Your task to perform on an android device: Search for pizza restaurants on Maps Image 0: 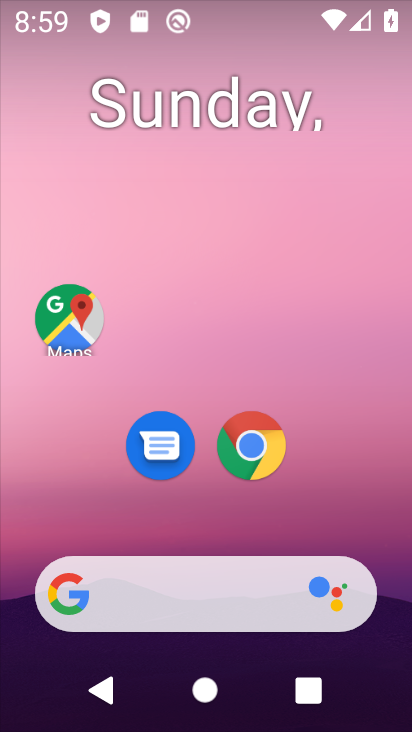
Step 0: click (63, 309)
Your task to perform on an android device: Search for pizza restaurants on Maps Image 1: 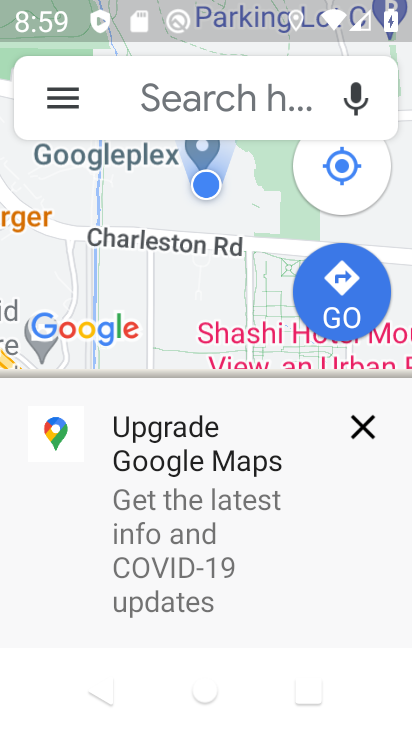
Step 1: click (149, 96)
Your task to perform on an android device: Search for pizza restaurants on Maps Image 2: 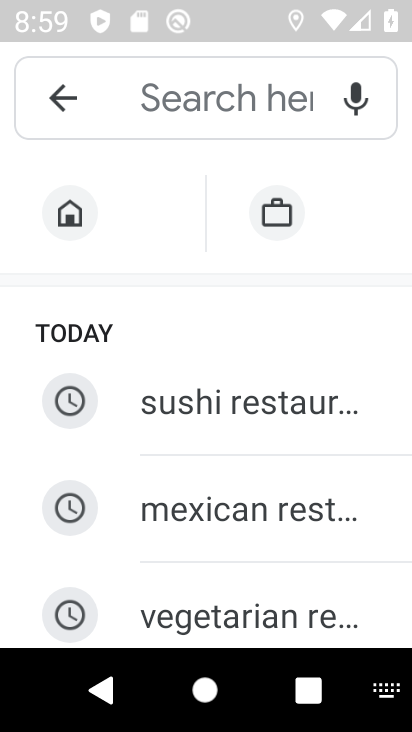
Step 2: type "pizza restaurants"
Your task to perform on an android device: Search for pizza restaurants on Maps Image 3: 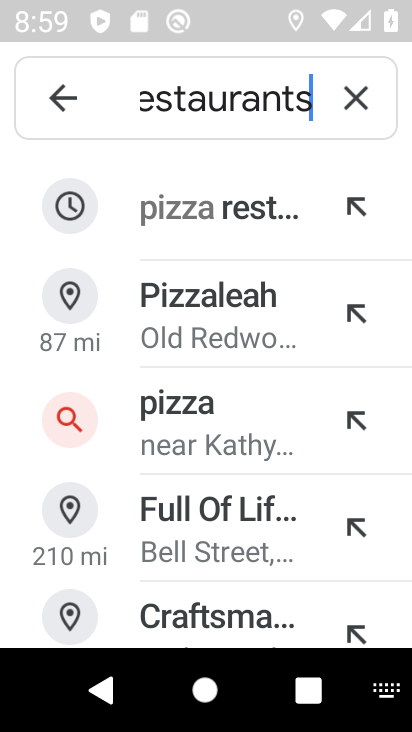
Step 3: click (208, 223)
Your task to perform on an android device: Search for pizza restaurants on Maps Image 4: 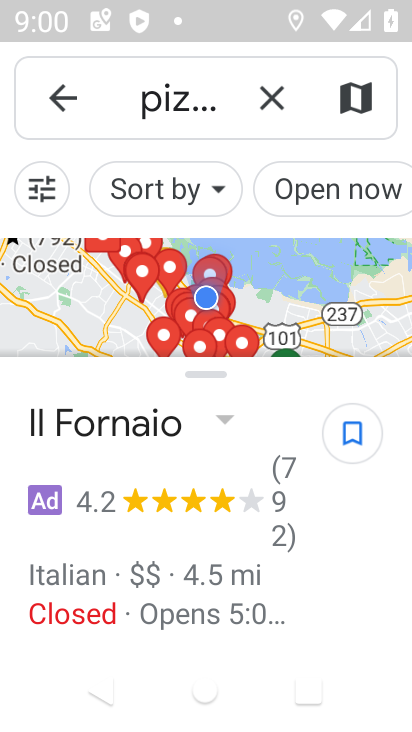
Step 4: task complete